Your task to perform on an android device: turn smart compose on in the gmail app Image 0: 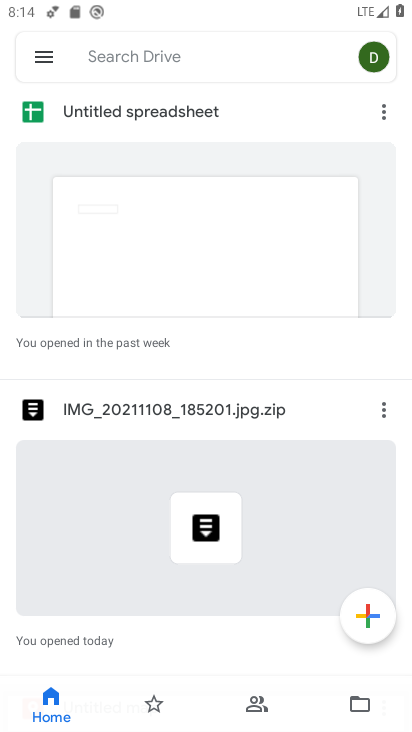
Step 0: press home button
Your task to perform on an android device: turn smart compose on in the gmail app Image 1: 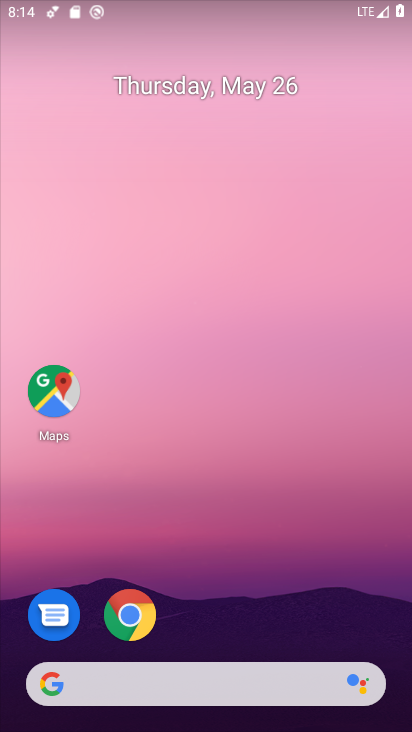
Step 1: drag from (280, 604) to (321, 142)
Your task to perform on an android device: turn smart compose on in the gmail app Image 2: 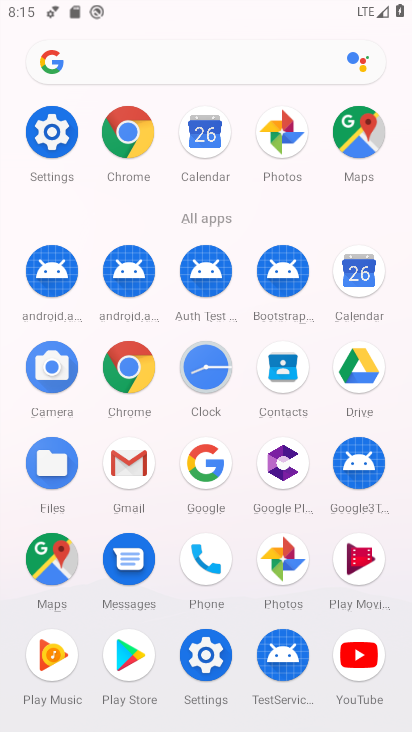
Step 2: click (135, 462)
Your task to perform on an android device: turn smart compose on in the gmail app Image 3: 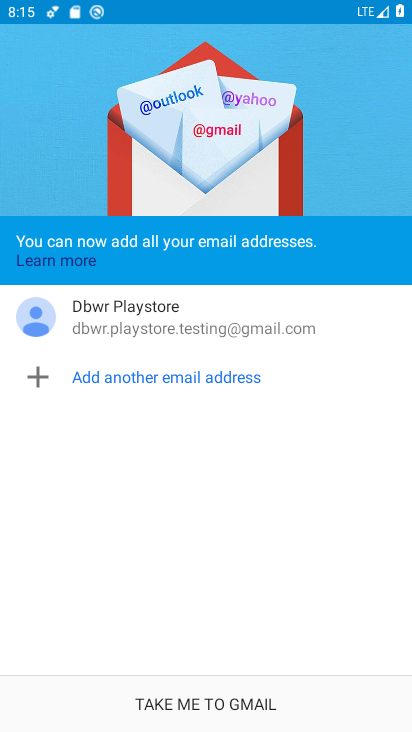
Step 3: click (213, 708)
Your task to perform on an android device: turn smart compose on in the gmail app Image 4: 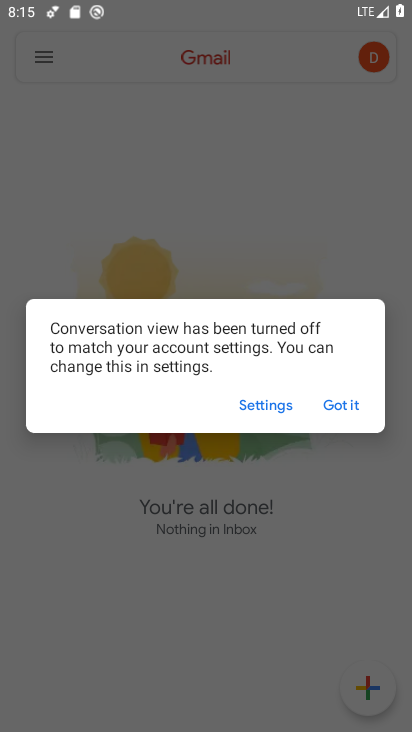
Step 4: click (337, 401)
Your task to perform on an android device: turn smart compose on in the gmail app Image 5: 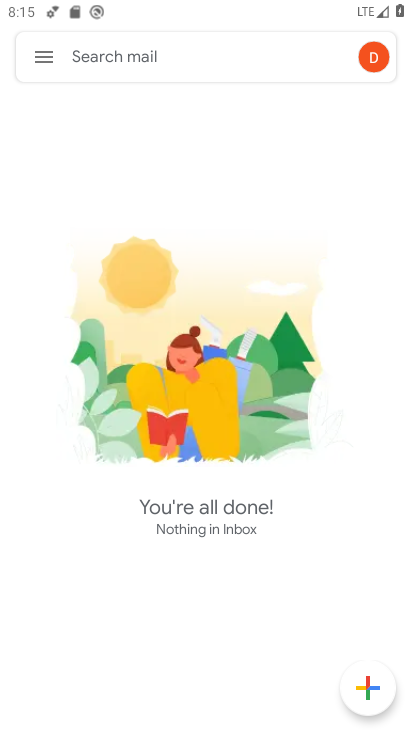
Step 5: click (35, 58)
Your task to perform on an android device: turn smart compose on in the gmail app Image 6: 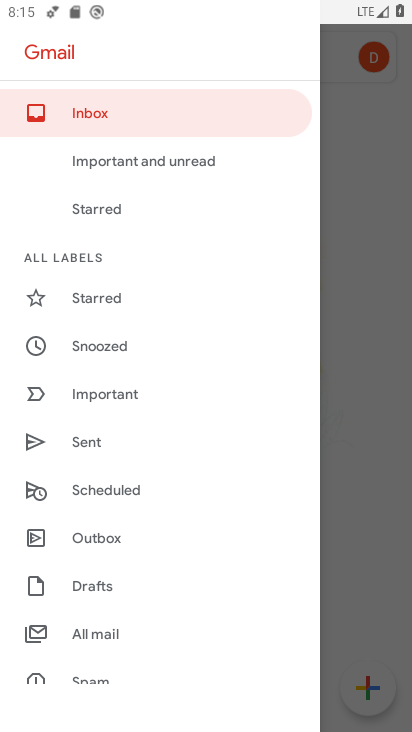
Step 6: drag from (147, 607) to (161, 422)
Your task to perform on an android device: turn smart compose on in the gmail app Image 7: 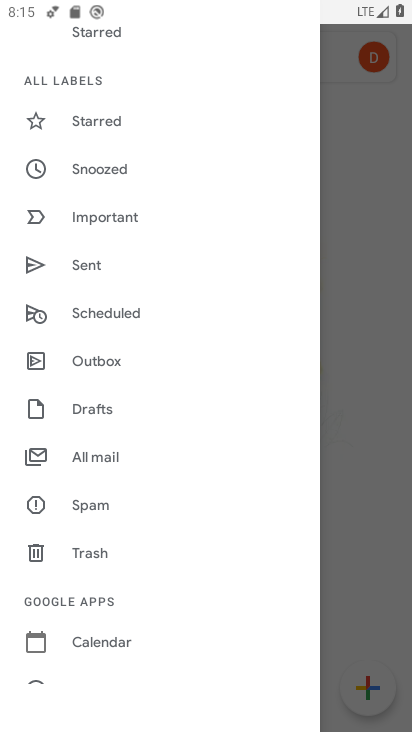
Step 7: drag from (152, 661) to (224, 265)
Your task to perform on an android device: turn smart compose on in the gmail app Image 8: 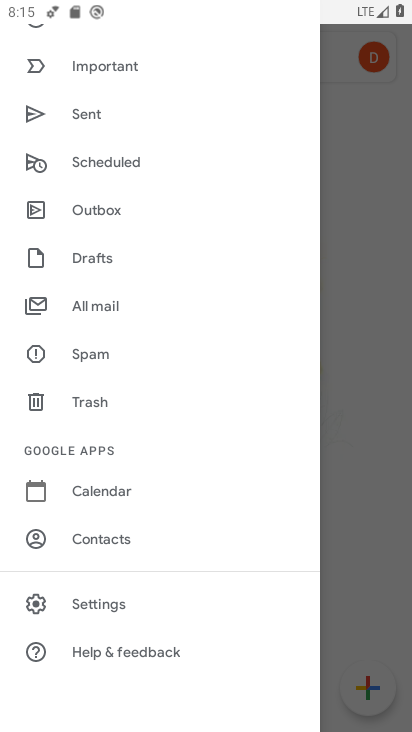
Step 8: click (119, 594)
Your task to perform on an android device: turn smart compose on in the gmail app Image 9: 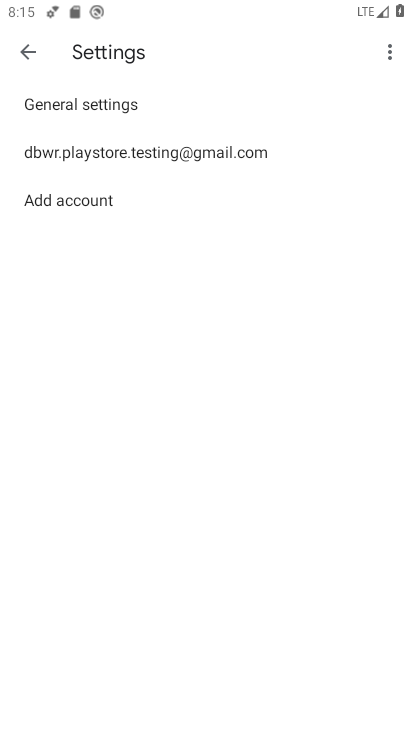
Step 9: click (187, 144)
Your task to perform on an android device: turn smart compose on in the gmail app Image 10: 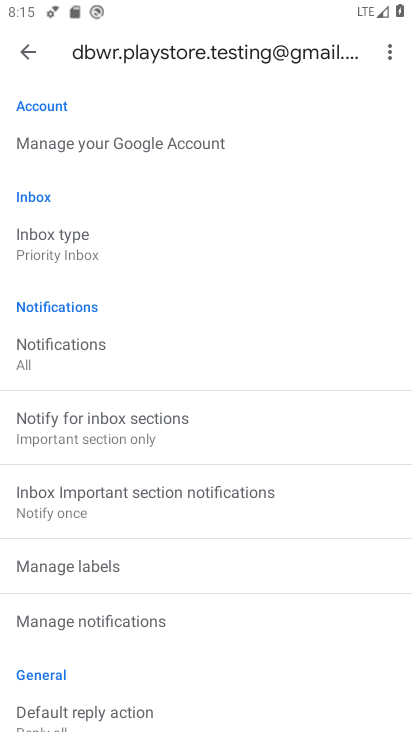
Step 10: task complete